Your task to perform on an android device: Open Google Chrome and open the bookmarks view Image 0: 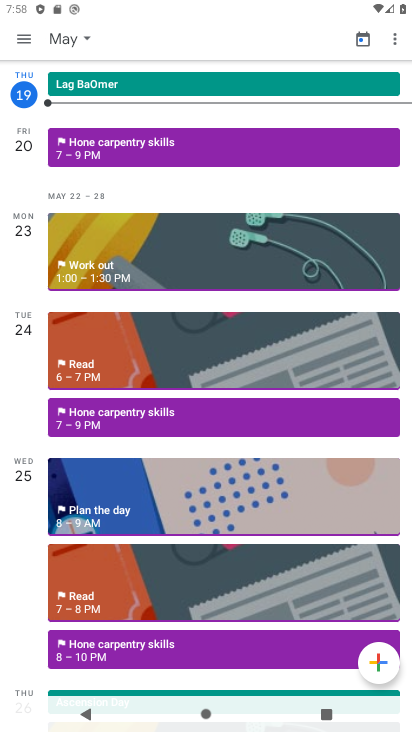
Step 0: press home button
Your task to perform on an android device: Open Google Chrome and open the bookmarks view Image 1: 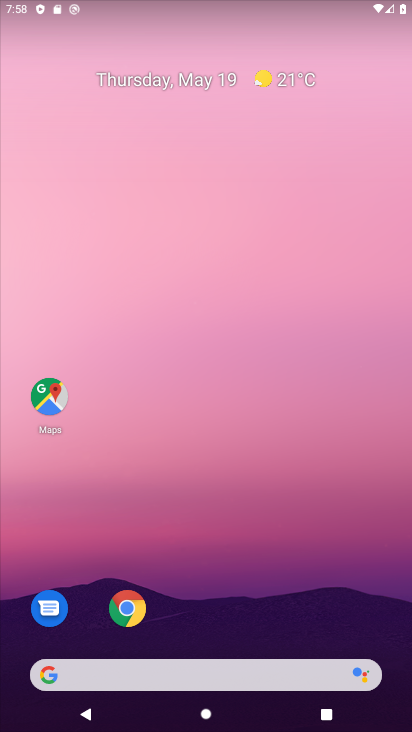
Step 1: drag from (260, 498) to (166, 69)
Your task to perform on an android device: Open Google Chrome and open the bookmarks view Image 2: 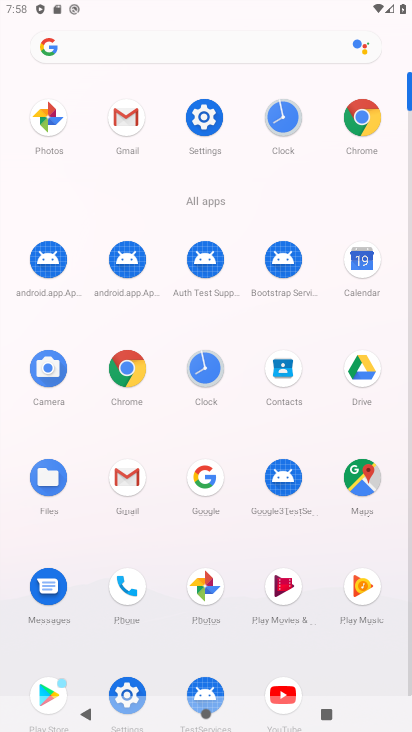
Step 2: click (130, 369)
Your task to perform on an android device: Open Google Chrome and open the bookmarks view Image 3: 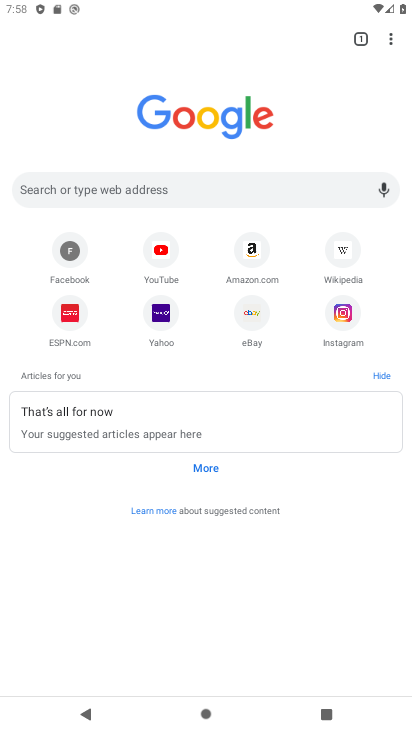
Step 3: click (392, 27)
Your task to perform on an android device: Open Google Chrome and open the bookmarks view Image 4: 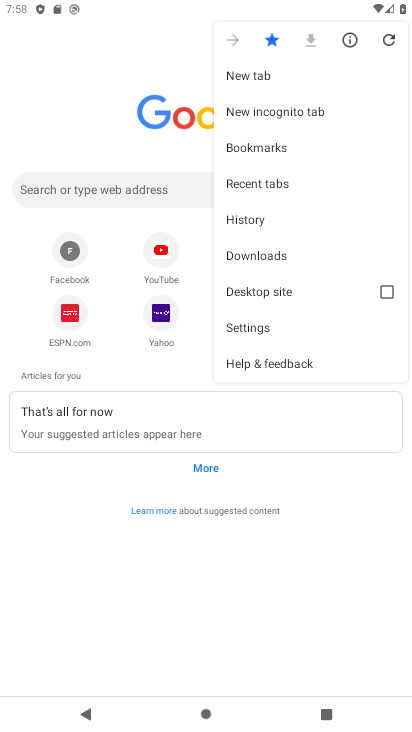
Step 4: click (392, 27)
Your task to perform on an android device: Open Google Chrome and open the bookmarks view Image 5: 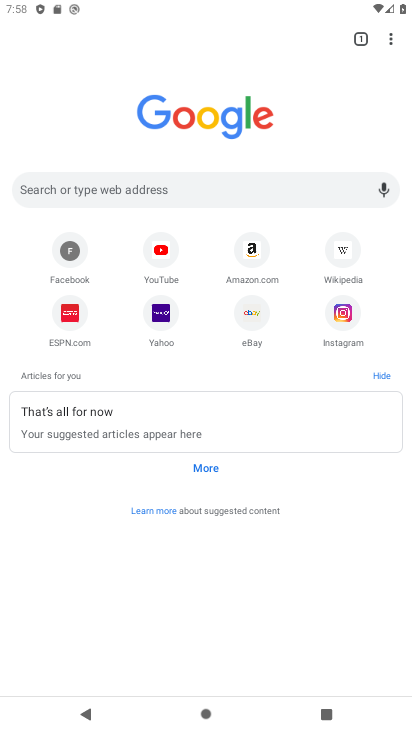
Step 5: click (392, 34)
Your task to perform on an android device: Open Google Chrome and open the bookmarks view Image 6: 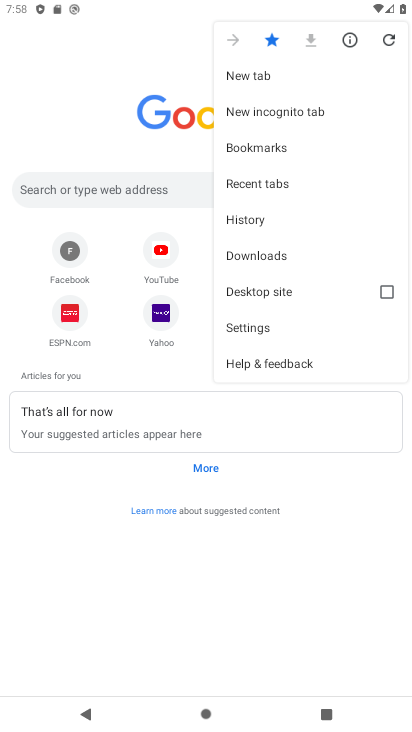
Step 6: click (248, 141)
Your task to perform on an android device: Open Google Chrome and open the bookmarks view Image 7: 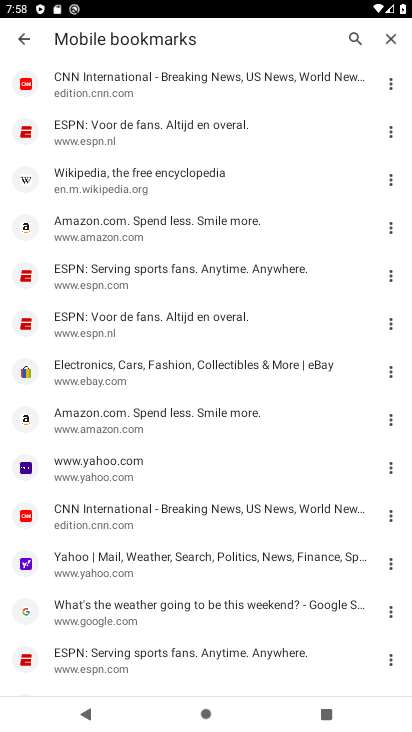
Step 7: click (278, 74)
Your task to perform on an android device: Open Google Chrome and open the bookmarks view Image 8: 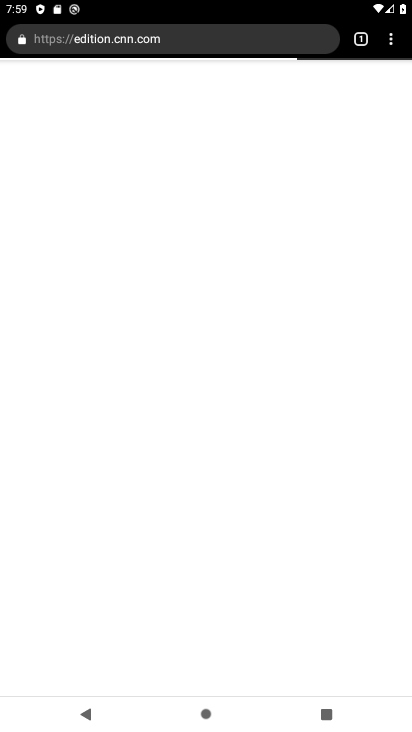
Step 8: task complete